Your task to perform on an android device: Check the weather Image 0: 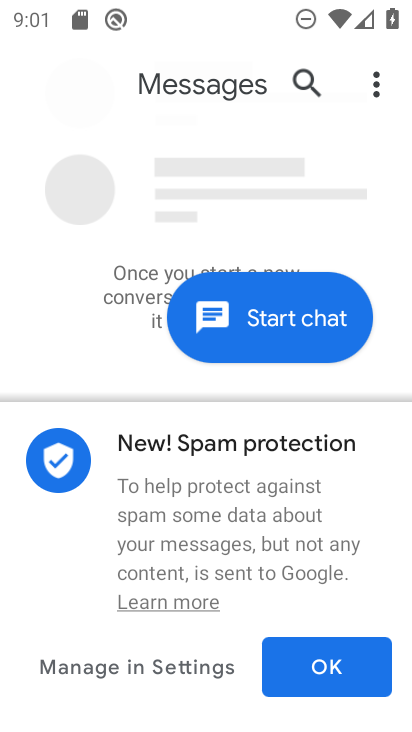
Step 0: press home button
Your task to perform on an android device: Check the weather Image 1: 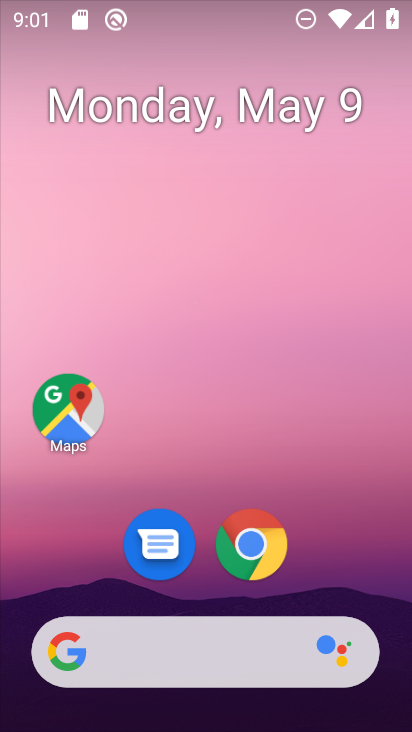
Step 1: click (209, 637)
Your task to perform on an android device: Check the weather Image 2: 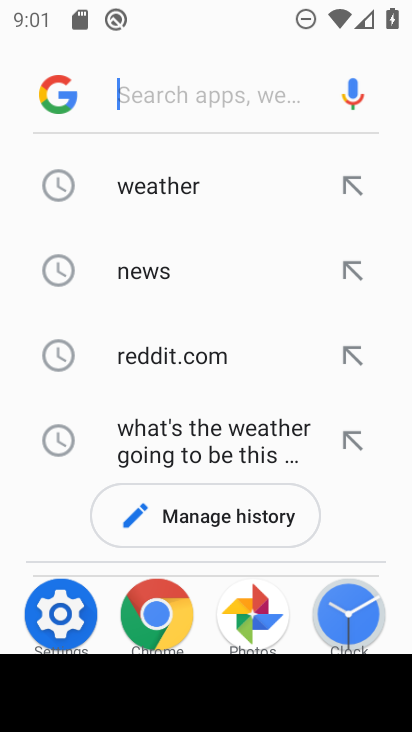
Step 2: click (168, 186)
Your task to perform on an android device: Check the weather Image 3: 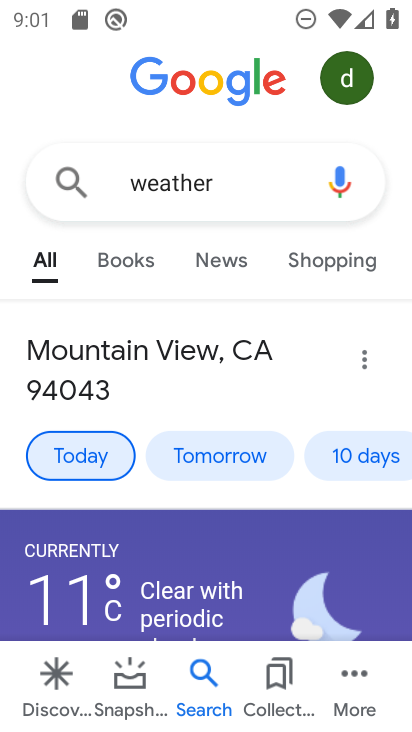
Step 3: task complete